Your task to perform on an android device: Go to location settings Image 0: 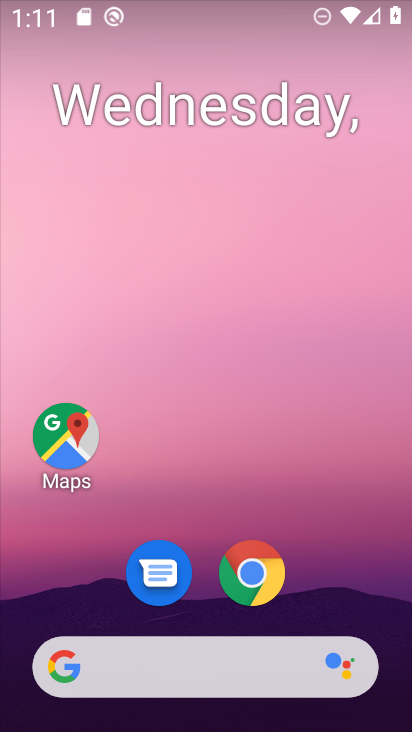
Step 0: drag from (201, 610) to (268, 94)
Your task to perform on an android device: Go to location settings Image 1: 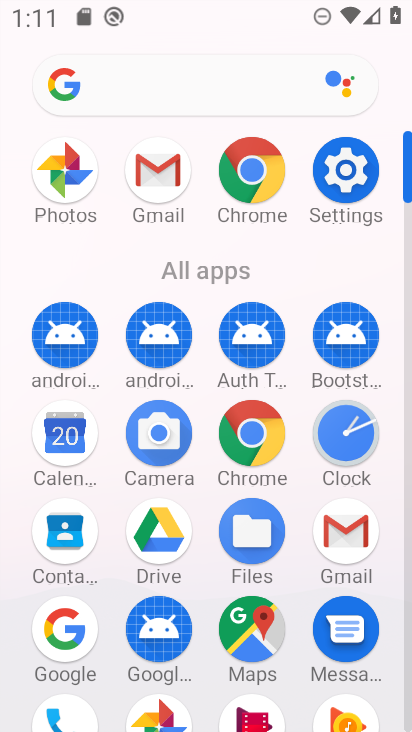
Step 1: click (346, 173)
Your task to perform on an android device: Go to location settings Image 2: 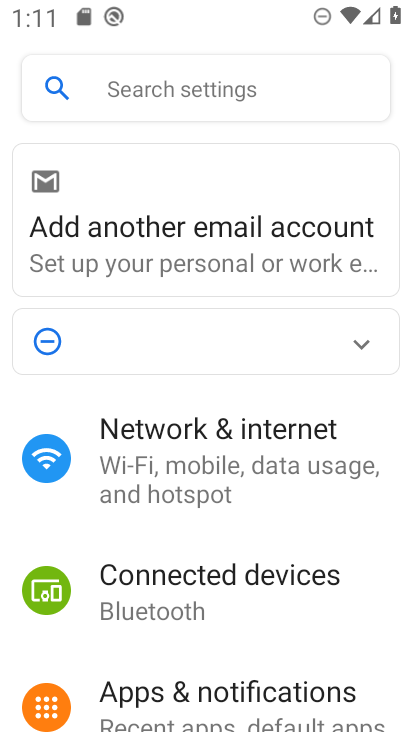
Step 2: drag from (182, 600) to (296, 158)
Your task to perform on an android device: Go to location settings Image 3: 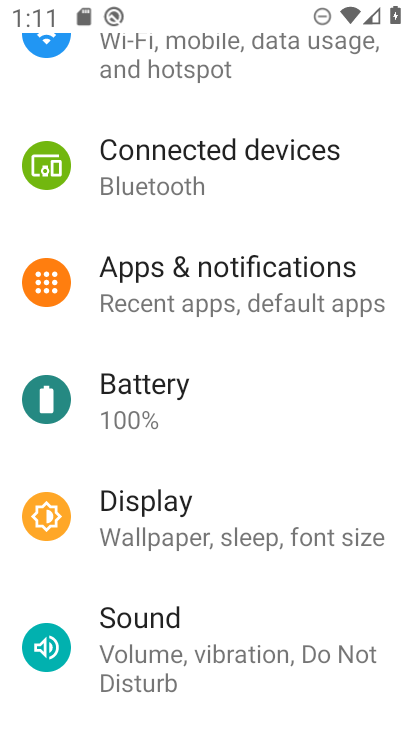
Step 3: drag from (210, 590) to (311, 174)
Your task to perform on an android device: Go to location settings Image 4: 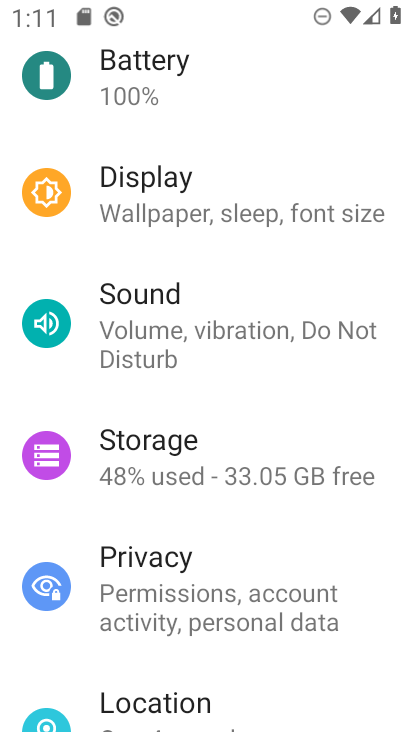
Step 4: click (141, 696)
Your task to perform on an android device: Go to location settings Image 5: 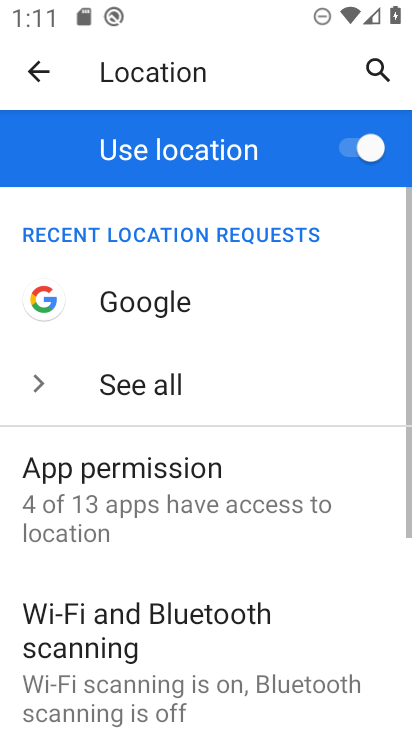
Step 5: task complete